Your task to perform on an android device: change the clock display to digital Image 0: 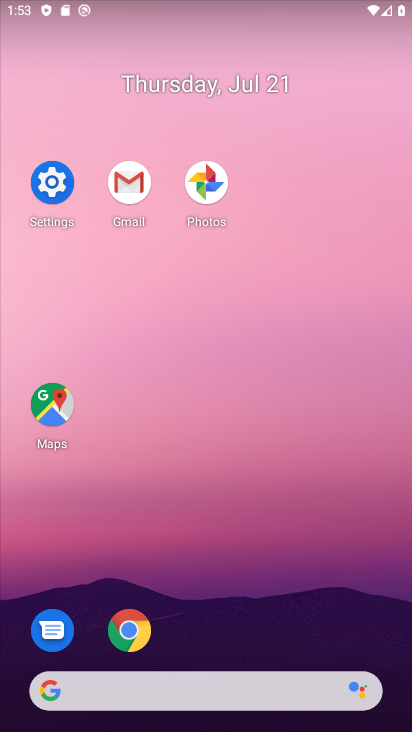
Step 0: drag from (303, 615) to (258, 183)
Your task to perform on an android device: change the clock display to digital Image 1: 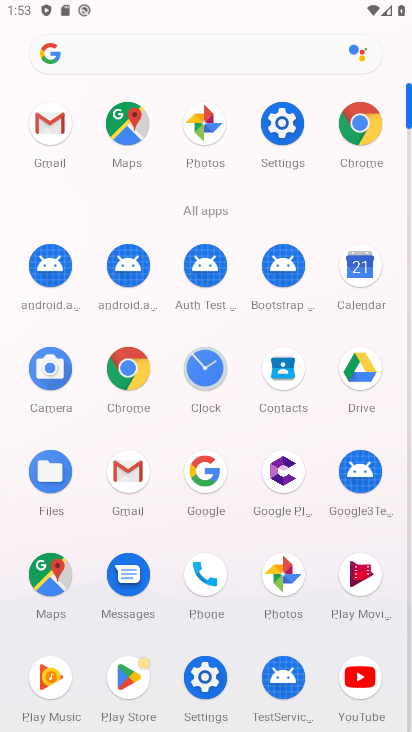
Step 1: drag from (208, 358) to (74, 313)
Your task to perform on an android device: change the clock display to digital Image 2: 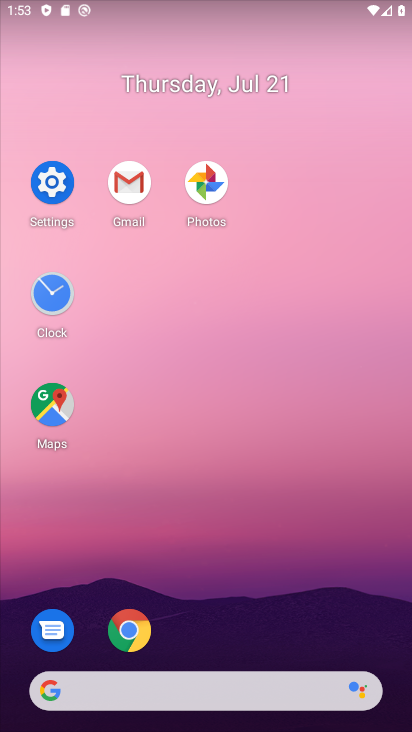
Step 2: click (61, 300)
Your task to perform on an android device: change the clock display to digital Image 3: 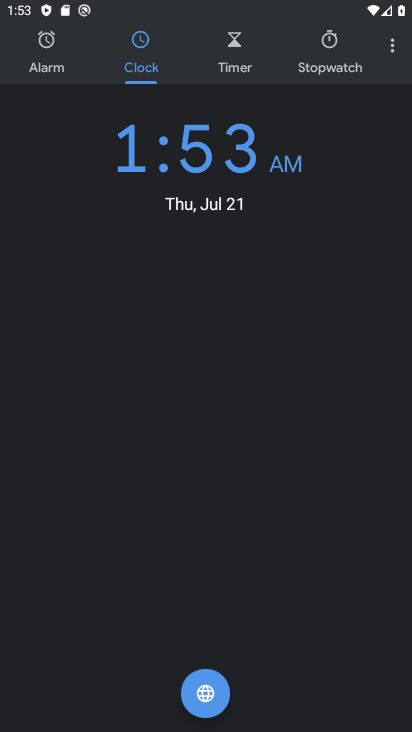
Step 3: click (392, 47)
Your task to perform on an android device: change the clock display to digital Image 4: 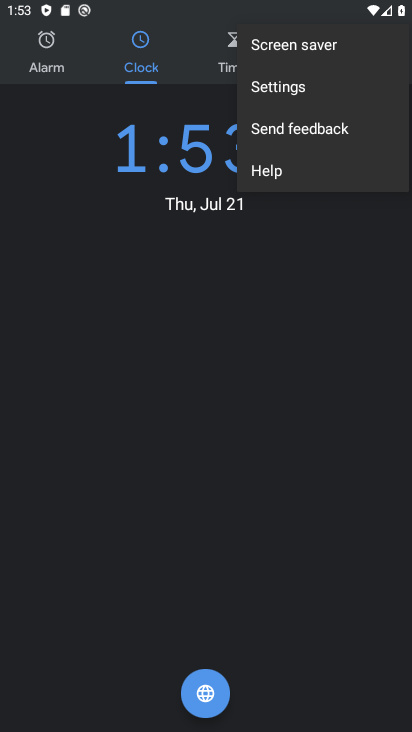
Step 4: click (288, 90)
Your task to perform on an android device: change the clock display to digital Image 5: 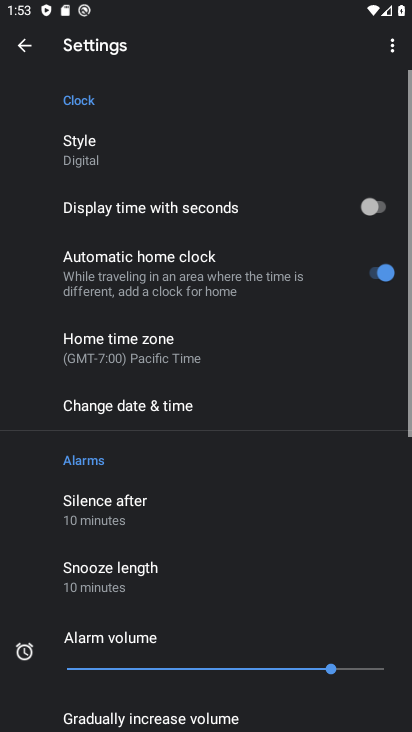
Step 5: click (178, 165)
Your task to perform on an android device: change the clock display to digital Image 6: 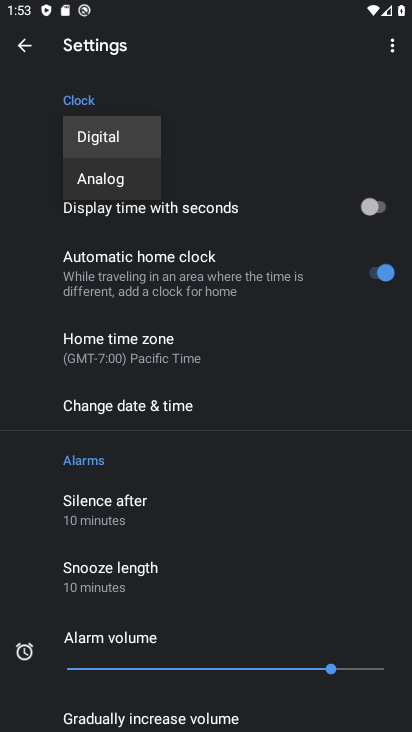
Step 6: task complete